Your task to perform on an android device: change the clock display to analog Image 0: 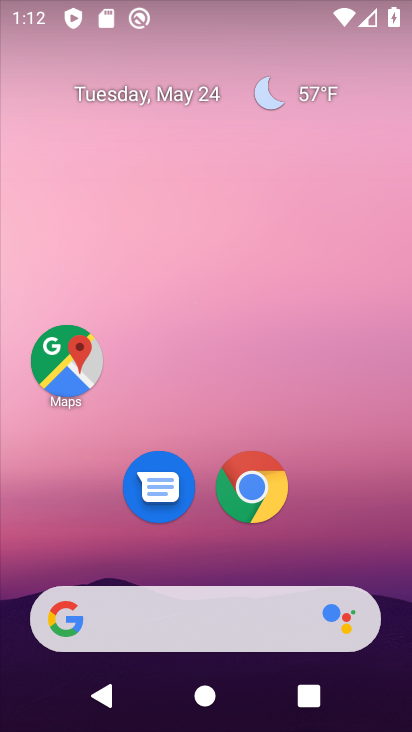
Step 0: drag from (227, 639) to (228, 151)
Your task to perform on an android device: change the clock display to analog Image 1: 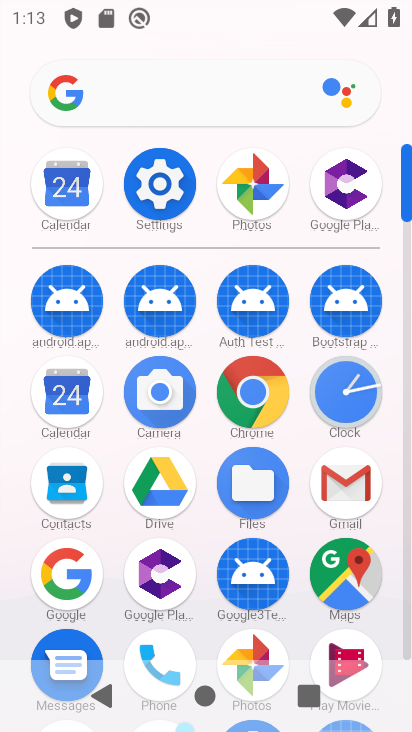
Step 1: click (354, 393)
Your task to perform on an android device: change the clock display to analog Image 2: 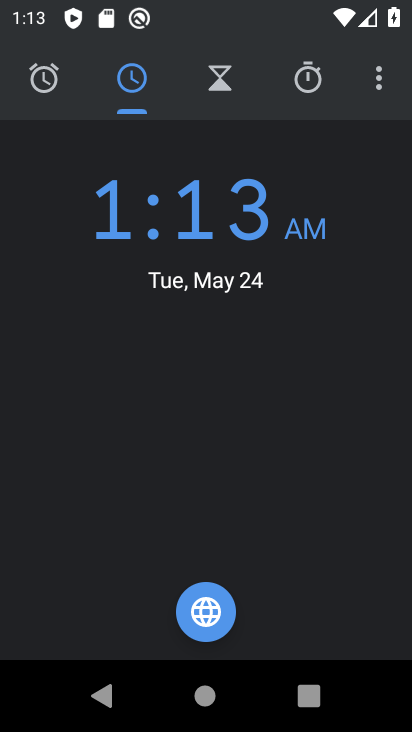
Step 2: click (381, 85)
Your task to perform on an android device: change the clock display to analog Image 3: 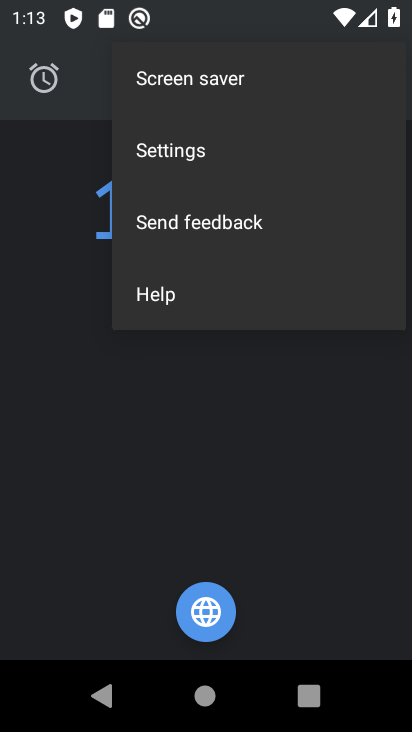
Step 3: click (159, 147)
Your task to perform on an android device: change the clock display to analog Image 4: 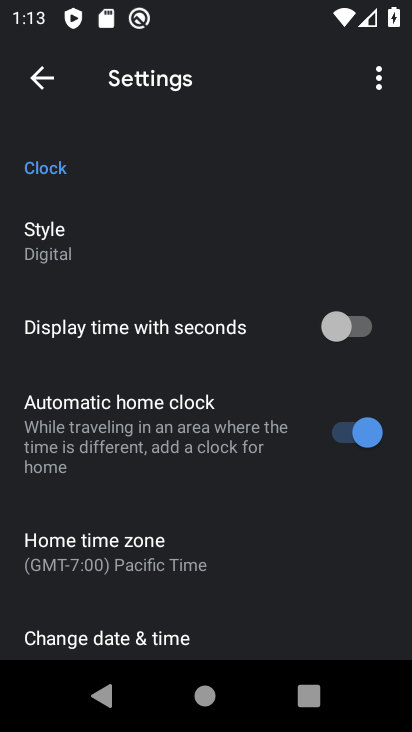
Step 4: click (55, 245)
Your task to perform on an android device: change the clock display to analog Image 5: 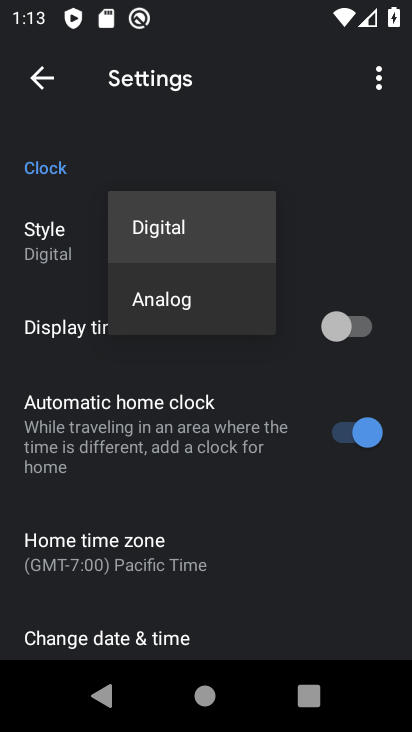
Step 5: click (193, 300)
Your task to perform on an android device: change the clock display to analog Image 6: 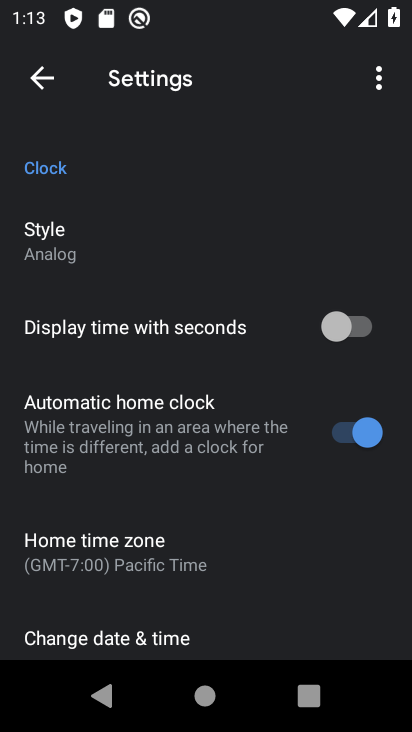
Step 6: task complete